Your task to perform on an android device: toggle notification dots Image 0: 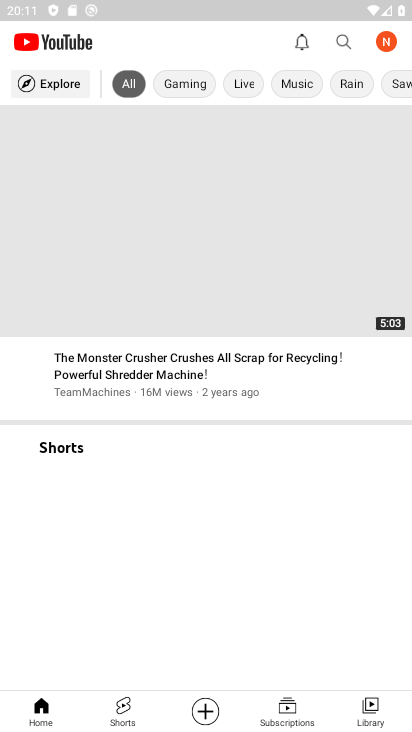
Step 0: press home button
Your task to perform on an android device: toggle notification dots Image 1: 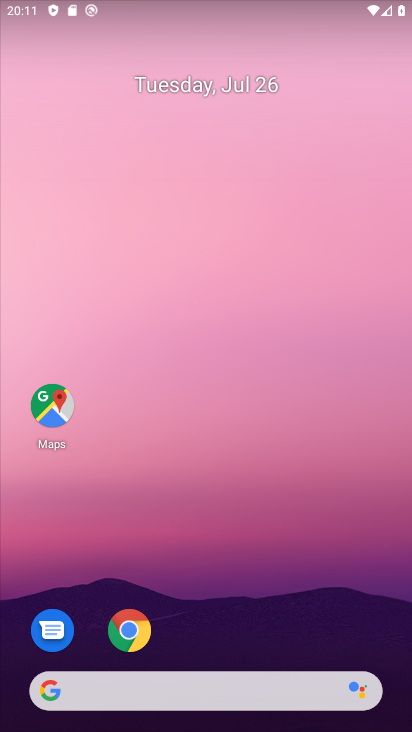
Step 1: drag from (371, 560) to (385, 104)
Your task to perform on an android device: toggle notification dots Image 2: 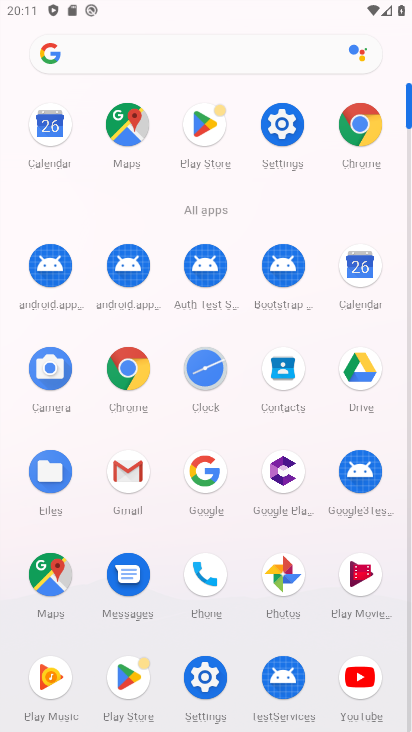
Step 2: click (286, 131)
Your task to perform on an android device: toggle notification dots Image 3: 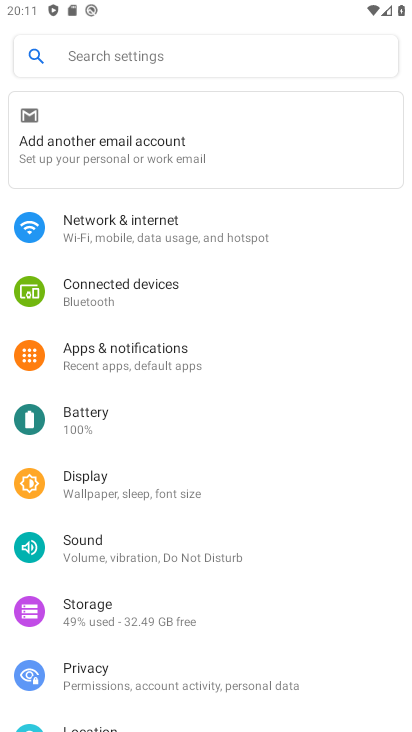
Step 3: drag from (329, 353) to (336, 311)
Your task to perform on an android device: toggle notification dots Image 4: 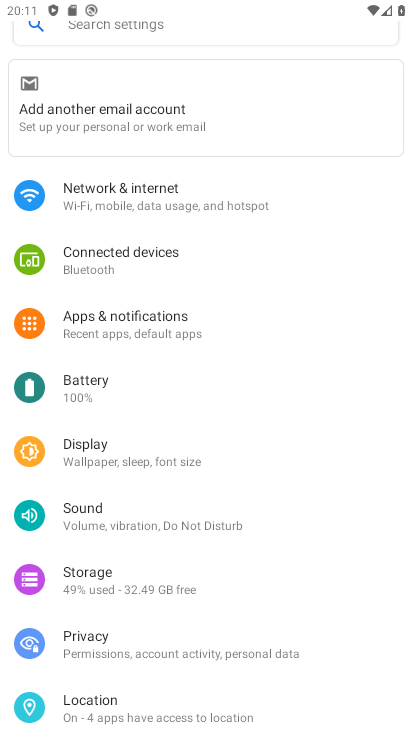
Step 4: drag from (337, 424) to (337, 360)
Your task to perform on an android device: toggle notification dots Image 5: 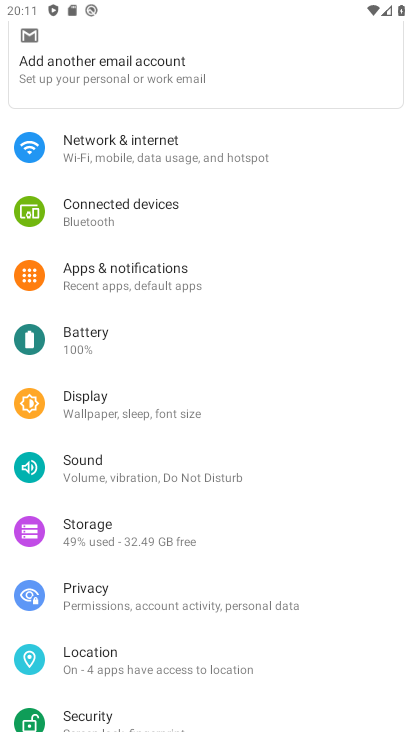
Step 5: drag from (335, 412) to (336, 345)
Your task to perform on an android device: toggle notification dots Image 6: 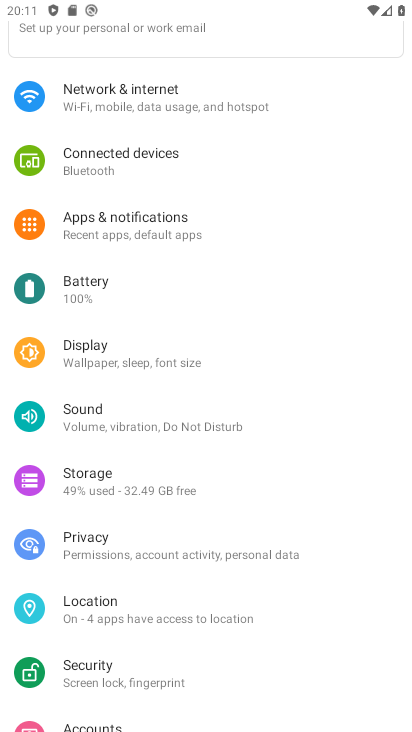
Step 6: drag from (338, 422) to (336, 313)
Your task to perform on an android device: toggle notification dots Image 7: 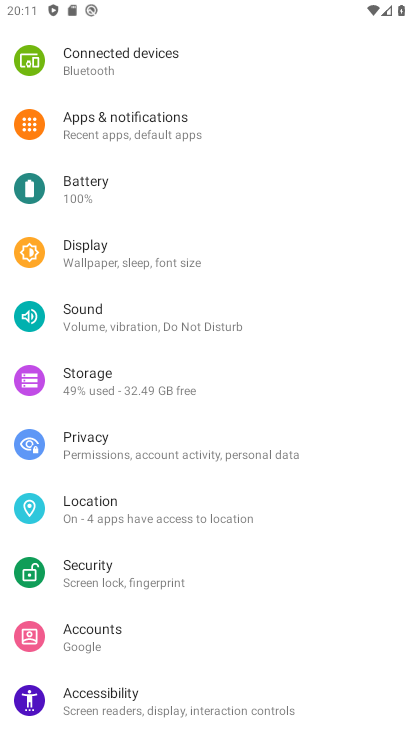
Step 7: drag from (344, 388) to (325, 243)
Your task to perform on an android device: toggle notification dots Image 8: 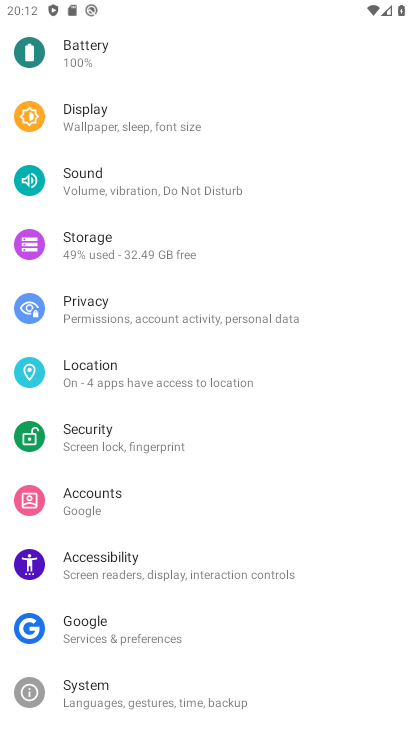
Step 8: drag from (328, 108) to (341, 284)
Your task to perform on an android device: toggle notification dots Image 9: 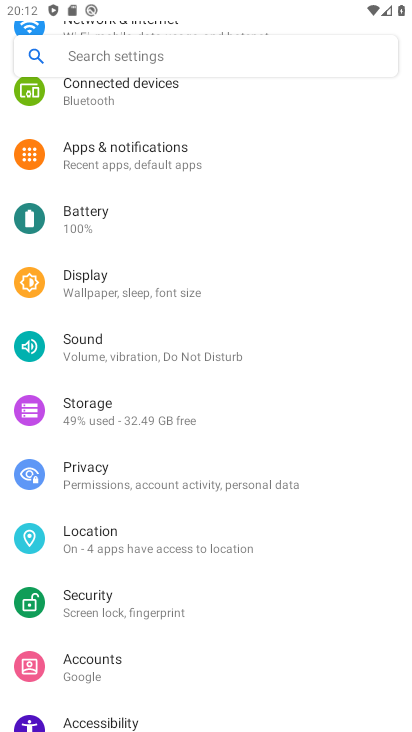
Step 9: click (241, 164)
Your task to perform on an android device: toggle notification dots Image 10: 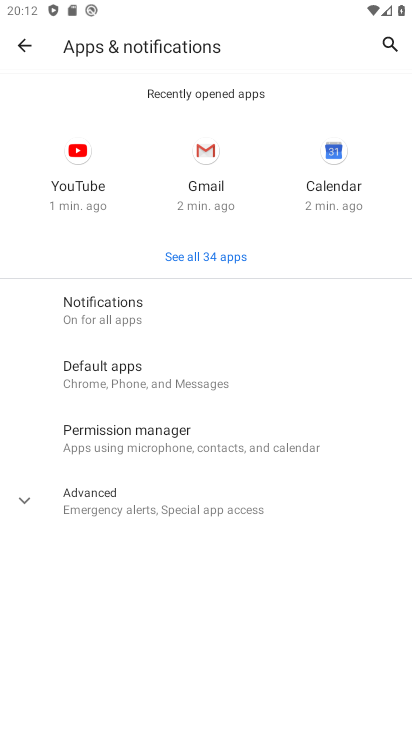
Step 10: click (245, 315)
Your task to perform on an android device: toggle notification dots Image 11: 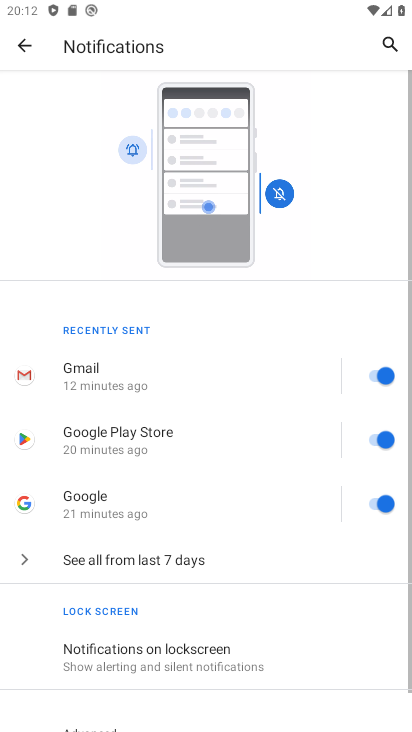
Step 11: drag from (266, 412) to (266, 344)
Your task to perform on an android device: toggle notification dots Image 12: 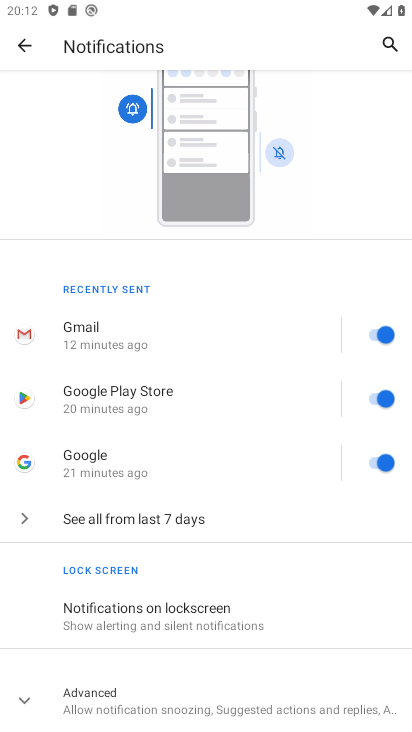
Step 12: click (265, 685)
Your task to perform on an android device: toggle notification dots Image 13: 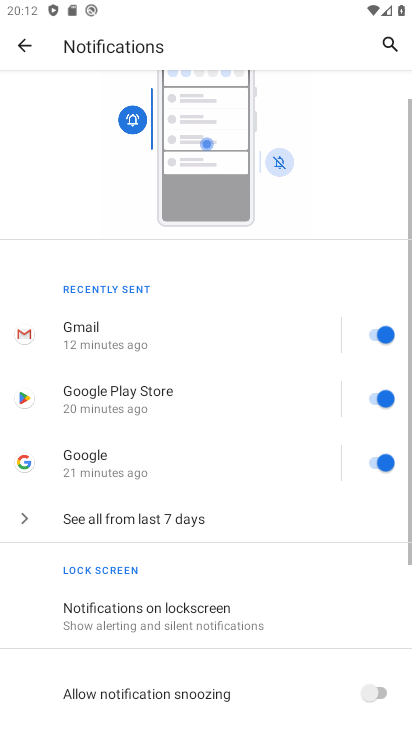
Step 13: drag from (291, 636) to (293, 553)
Your task to perform on an android device: toggle notification dots Image 14: 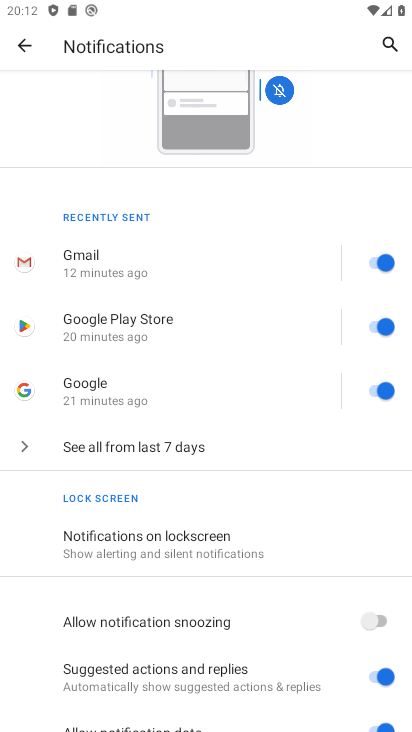
Step 14: drag from (278, 622) to (284, 410)
Your task to perform on an android device: toggle notification dots Image 15: 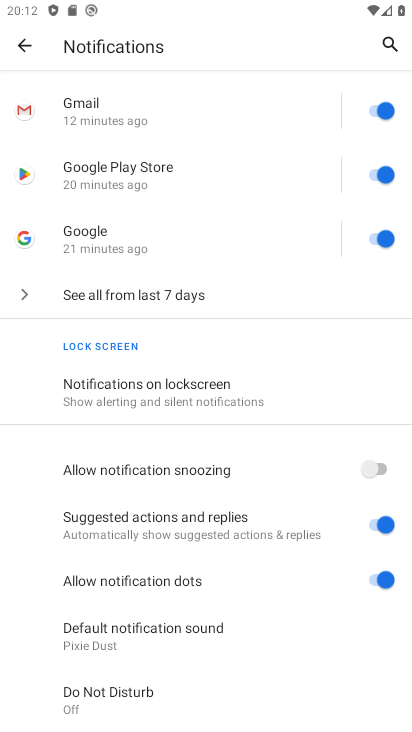
Step 15: click (386, 582)
Your task to perform on an android device: toggle notification dots Image 16: 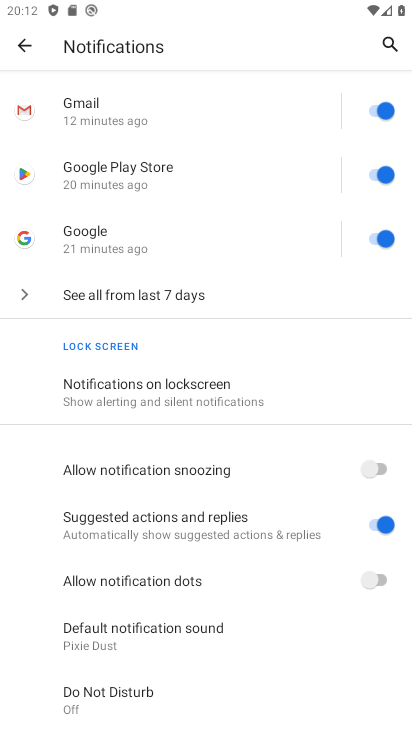
Step 16: task complete